Your task to perform on an android device: Open a new window in the chrome app Image 0: 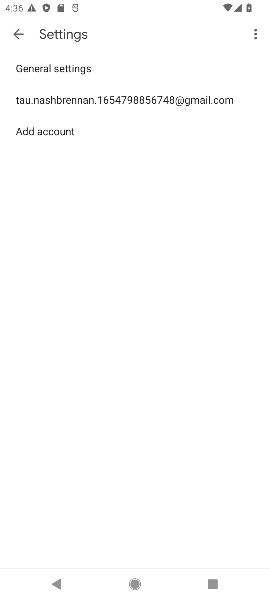
Step 0: click (129, 587)
Your task to perform on an android device: Open a new window in the chrome app Image 1: 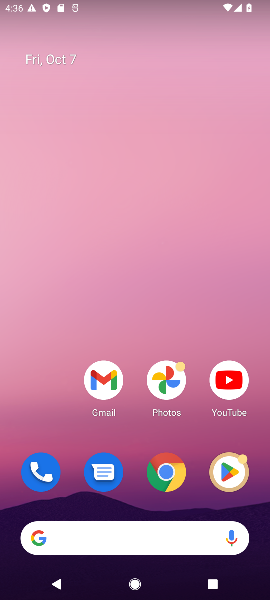
Step 1: click (164, 471)
Your task to perform on an android device: Open a new window in the chrome app Image 2: 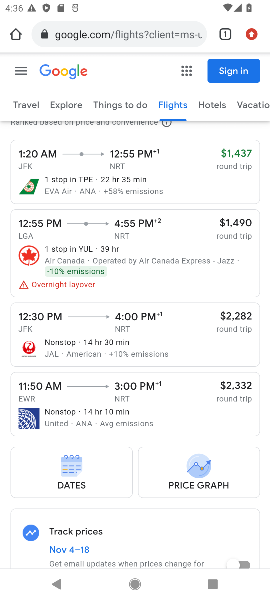
Step 2: click (251, 37)
Your task to perform on an android device: Open a new window in the chrome app Image 3: 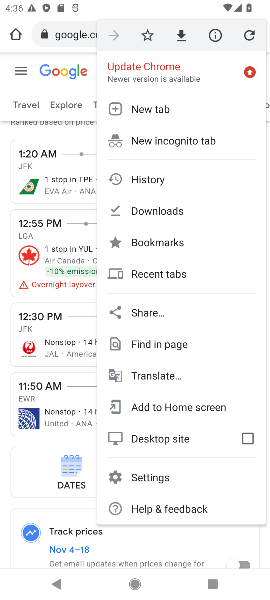
Step 3: click (151, 107)
Your task to perform on an android device: Open a new window in the chrome app Image 4: 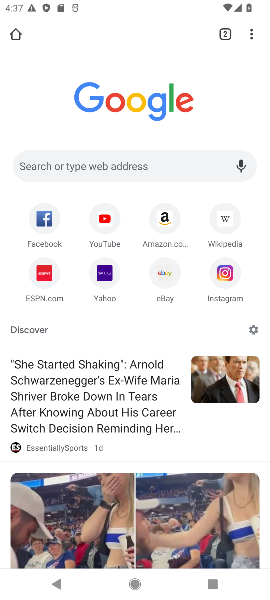
Step 4: task complete